Your task to perform on an android device: toggle notification dots Image 0: 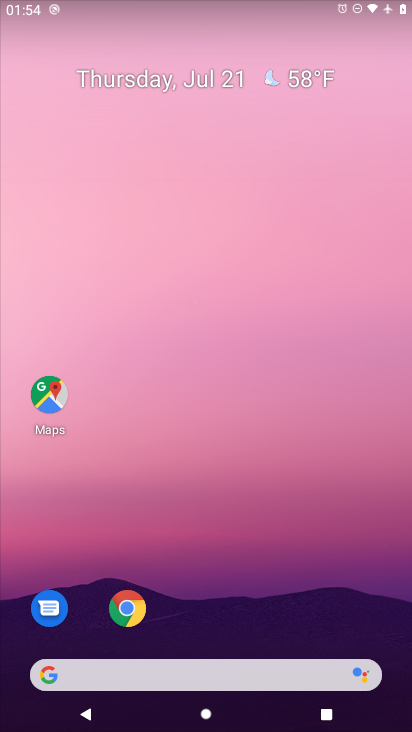
Step 0: press home button
Your task to perform on an android device: toggle notification dots Image 1: 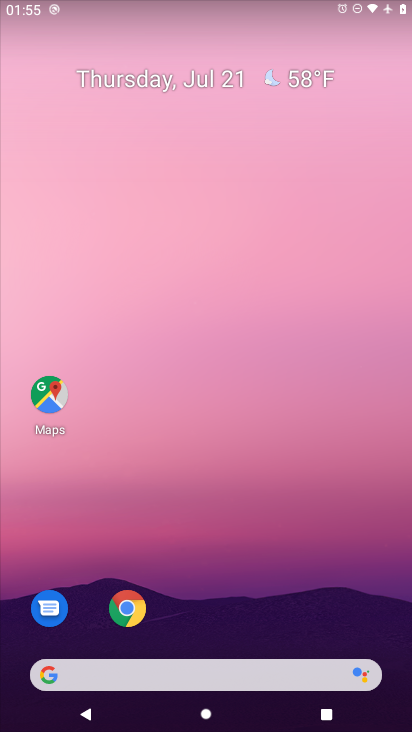
Step 1: drag from (217, 661) to (230, 18)
Your task to perform on an android device: toggle notification dots Image 2: 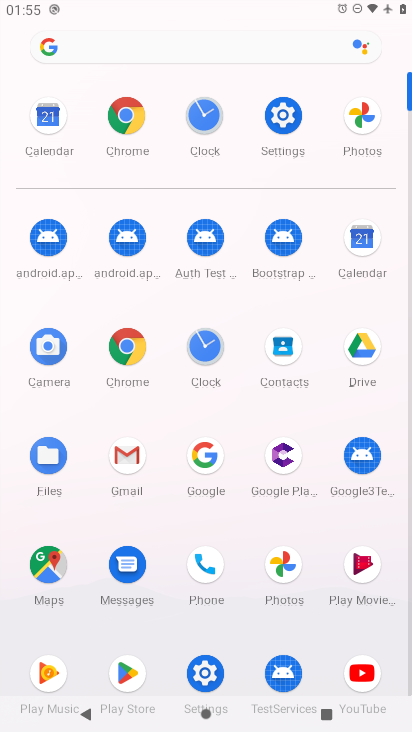
Step 2: click (284, 110)
Your task to perform on an android device: toggle notification dots Image 3: 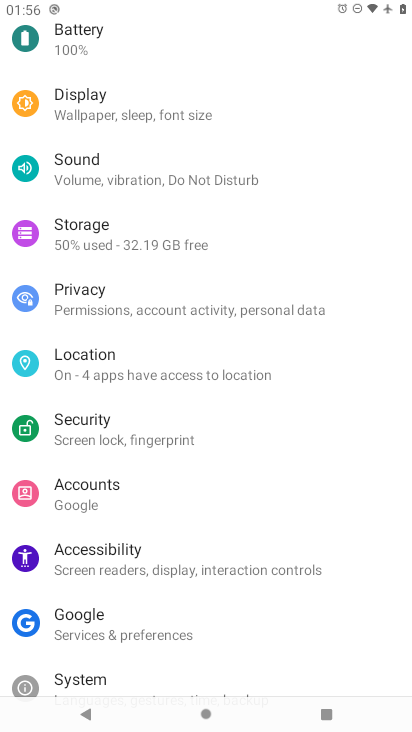
Step 3: drag from (299, 80) to (311, 594)
Your task to perform on an android device: toggle notification dots Image 4: 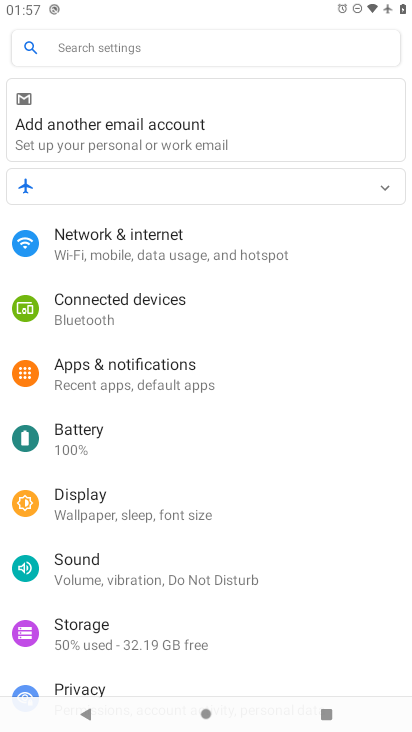
Step 4: click (110, 381)
Your task to perform on an android device: toggle notification dots Image 5: 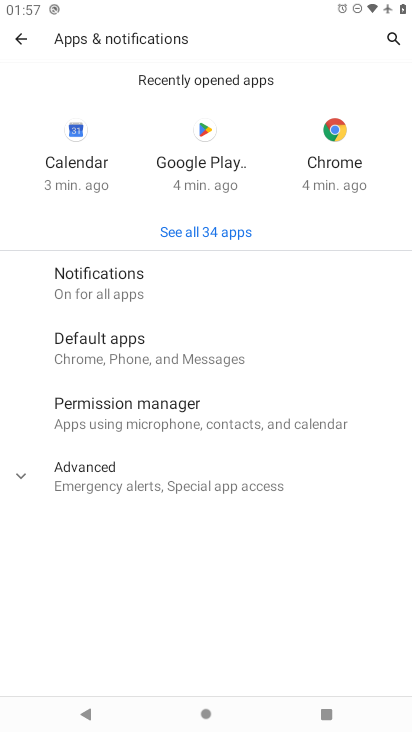
Step 5: click (66, 474)
Your task to perform on an android device: toggle notification dots Image 6: 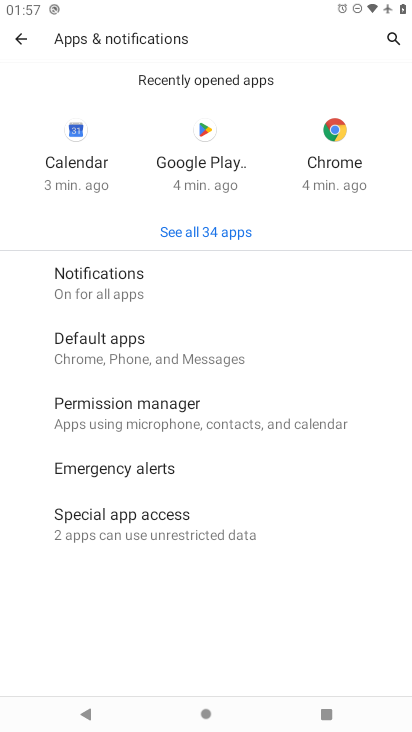
Step 6: drag from (345, 543) to (341, 53)
Your task to perform on an android device: toggle notification dots Image 7: 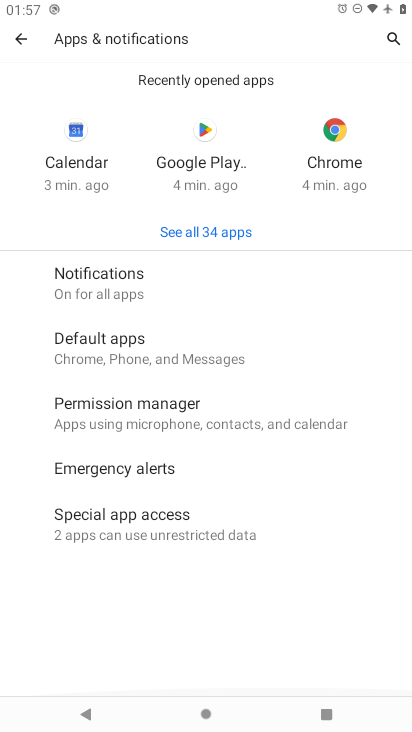
Step 7: click (86, 284)
Your task to perform on an android device: toggle notification dots Image 8: 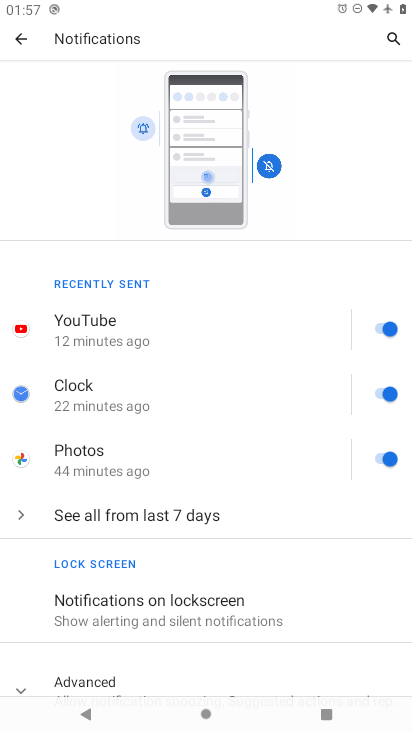
Step 8: drag from (295, 628) to (252, 71)
Your task to perform on an android device: toggle notification dots Image 9: 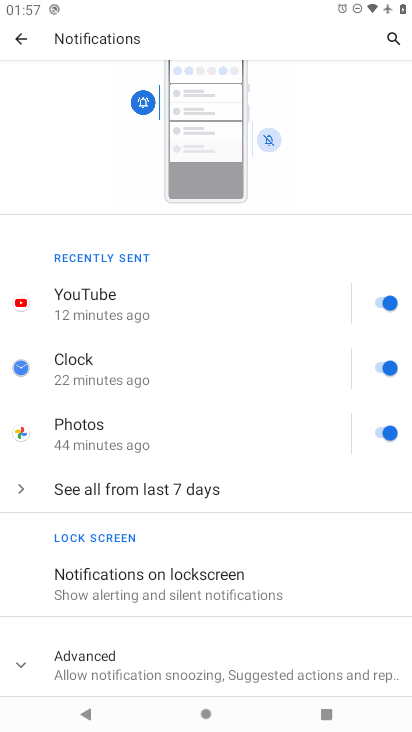
Step 9: click (117, 661)
Your task to perform on an android device: toggle notification dots Image 10: 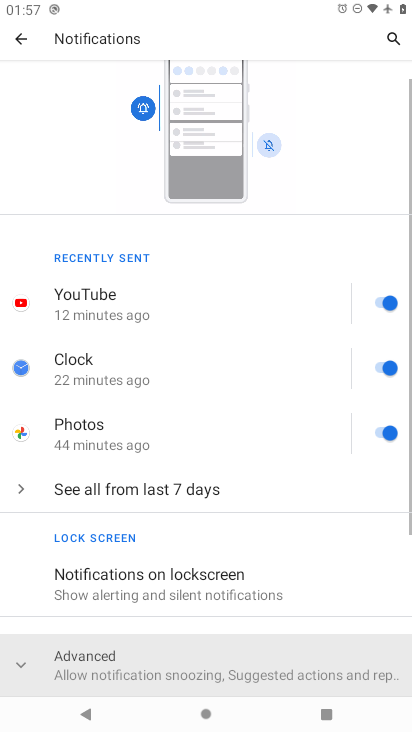
Step 10: click (117, 661)
Your task to perform on an android device: toggle notification dots Image 11: 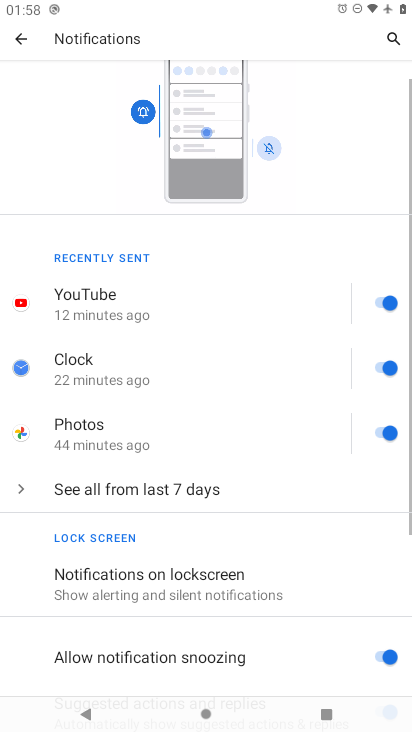
Step 11: drag from (297, 587) to (299, 196)
Your task to perform on an android device: toggle notification dots Image 12: 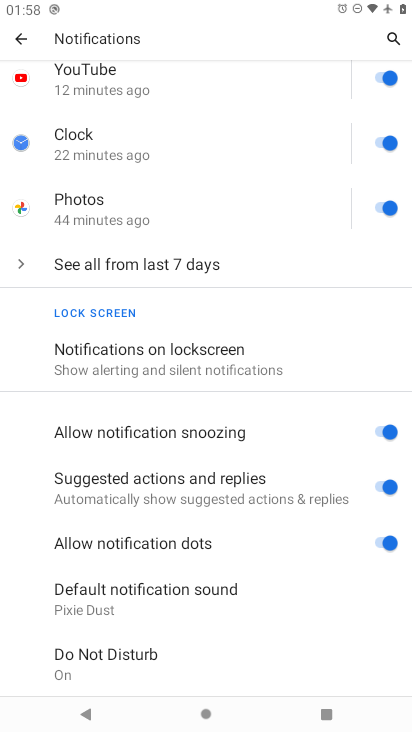
Step 12: click (385, 546)
Your task to perform on an android device: toggle notification dots Image 13: 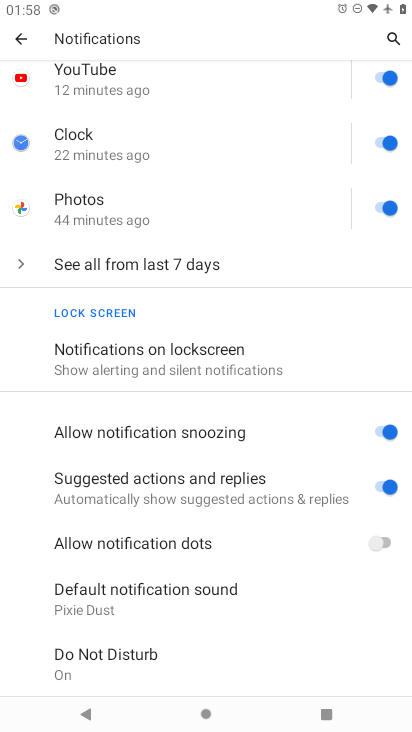
Step 13: task complete